Your task to perform on an android device: open a bookmark in the chrome app Image 0: 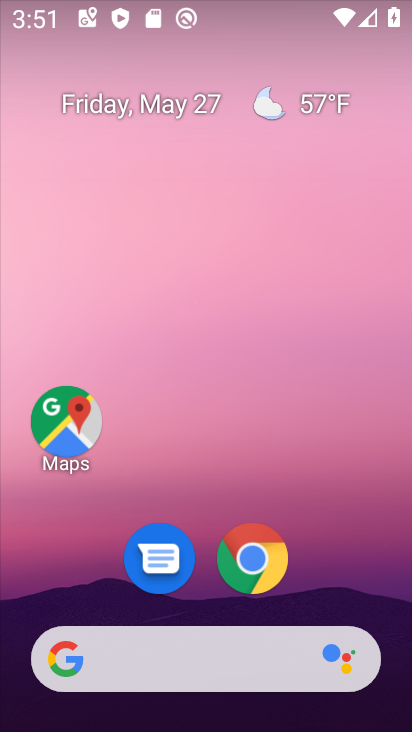
Step 0: click (277, 571)
Your task to perform on an android device: open a bookmark in the chrome app Image 1: 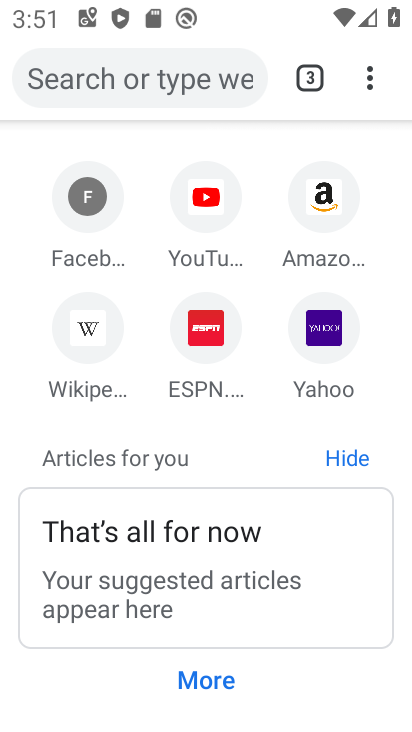
Step 1: click (360, 99)
Your task to perform on an android device: open a bookmark in the chrome app Image 2: 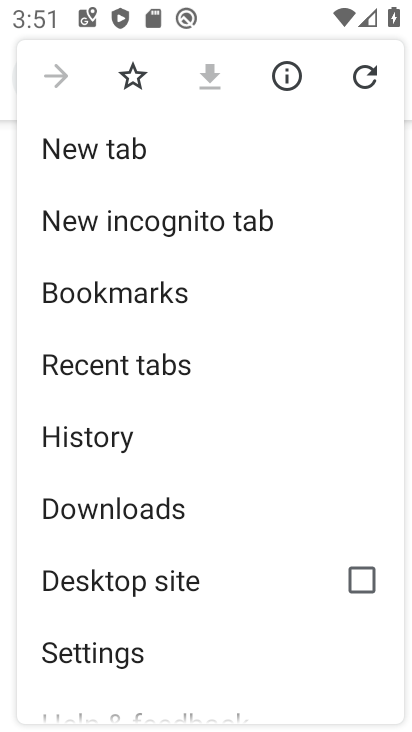
Step 2: click (201, 285)
Your task to perform on an android device: open a bookmark in the chrome app Image 3: 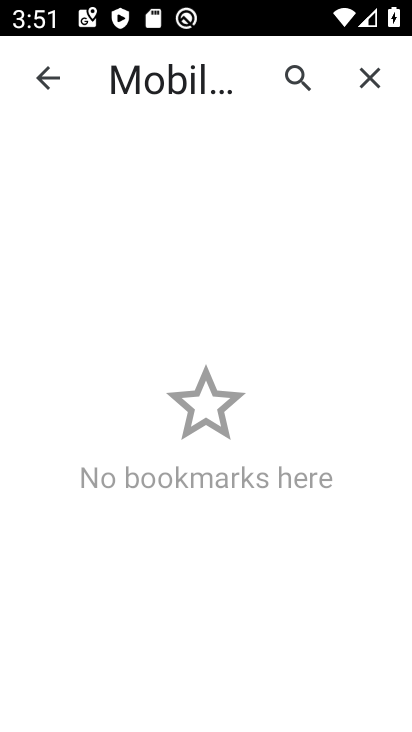
Step 3: task complete